Your task to perform on an android device: set the stopwatch Image 0: 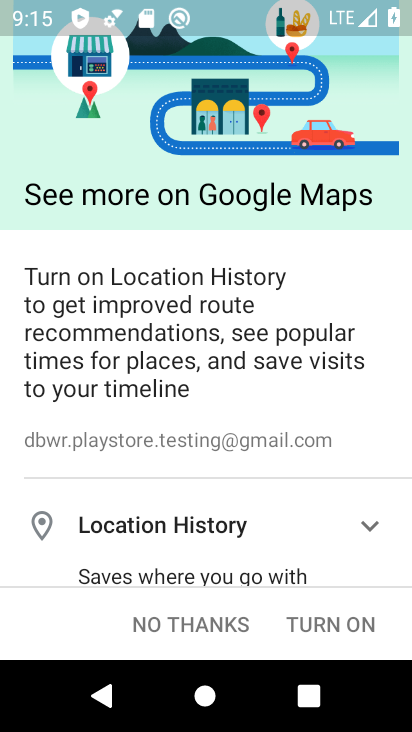
Step 0: press back button
Your task to perform on an android device: set the stopwatch Image 1: 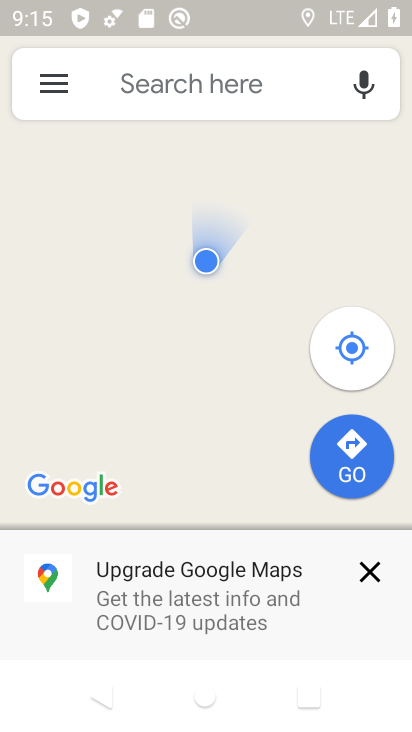
Step 1: press back button
Your task to perform on an android device: set the stopwatch Image 2: 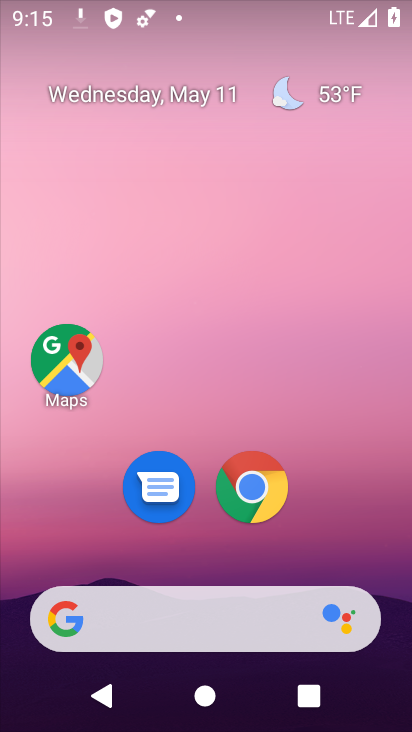
Step 2: drag from (324, 534) to (217, 109)
Your task to perform on an android device: set the stopwatch Image 3: 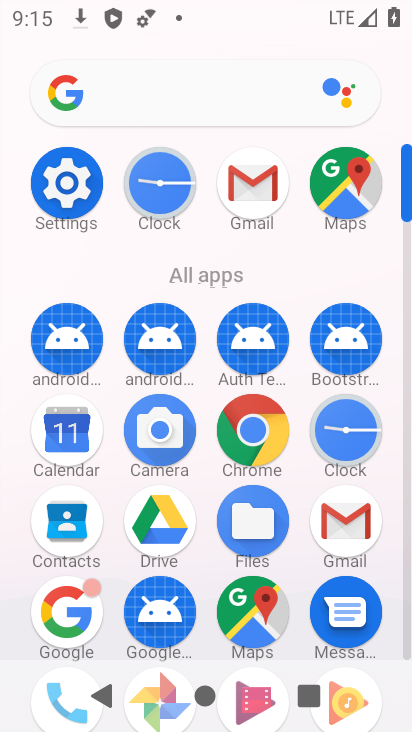
Step 3: click (158, 182)
Your task to perform on an android device: set the stopwatch Image 4: 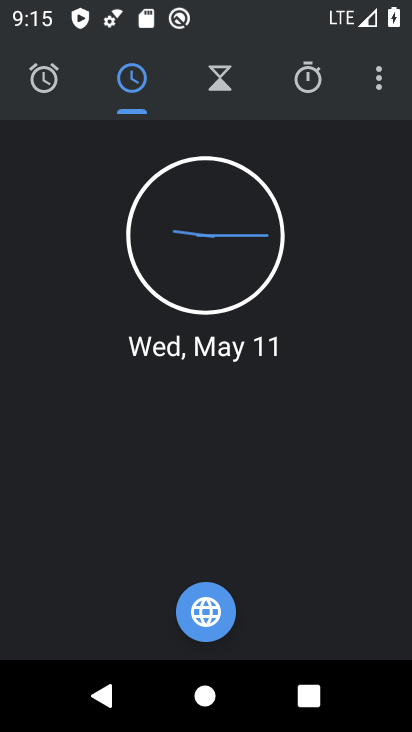
Step 4: click (310, 83)
Your task to perform on an android device: set the stopwatch Image 5: 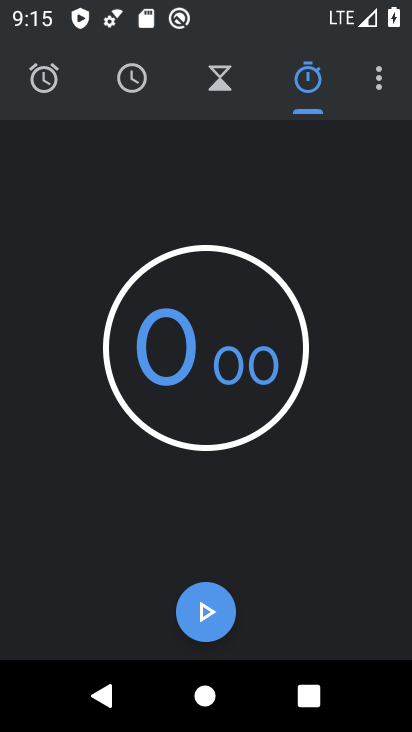
Step 5: click (216, 594)
Your task to perform on an android device: set the stopwatch Image 6: 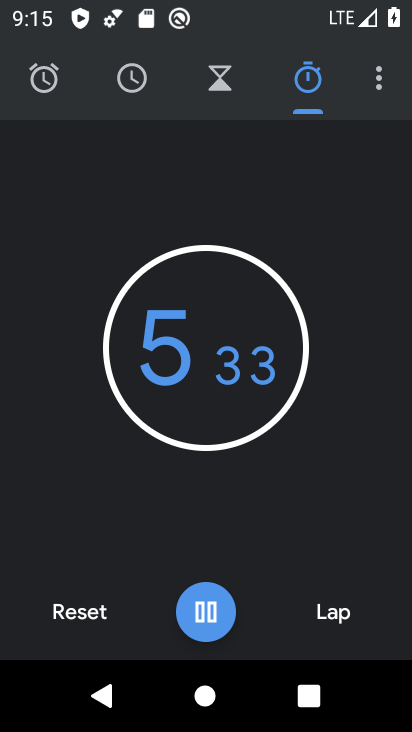
Step 6: click (222, 610)
Your task to perform on an android device: set the stopwatch Image 7: 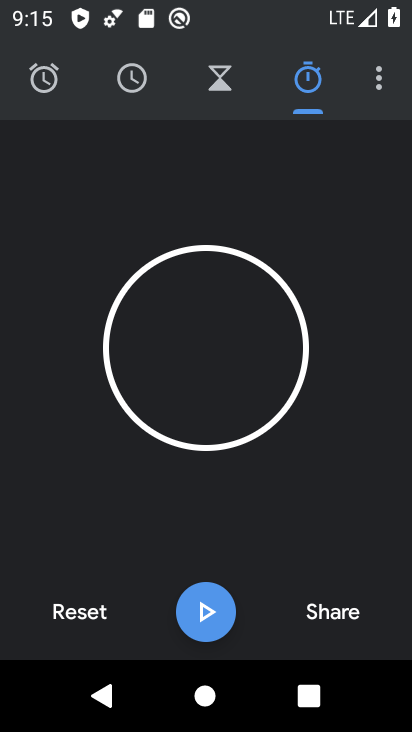
Step 7: task complete